Your task to perform on an android device: Open the map Image 0: 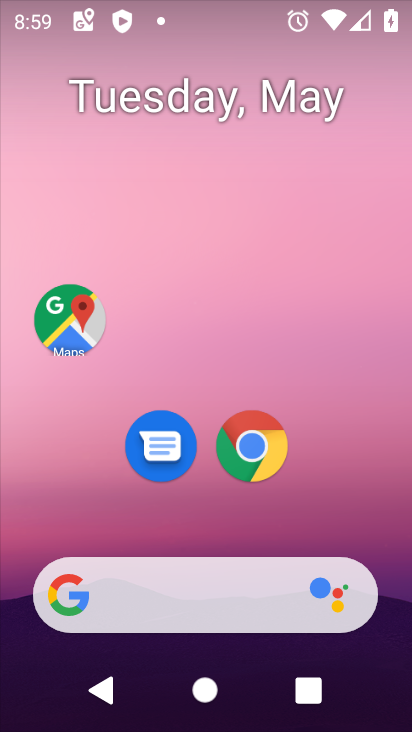
Step 0: click (67, 321)
Your task to perform on an android device: Open the map Image 1: 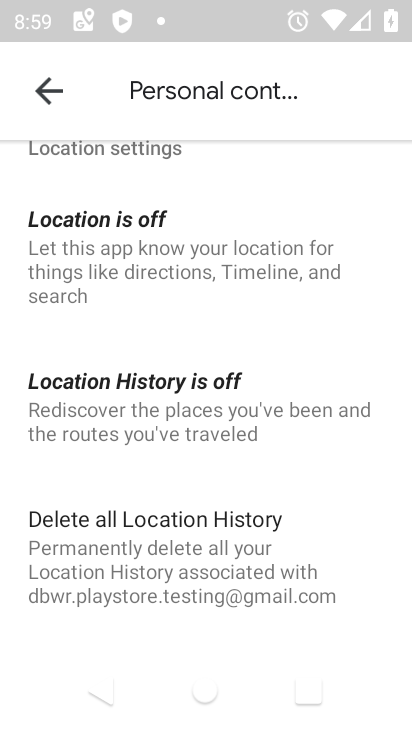
Step 1: click (40, 96)
Your task to perform on an android device: Open the map Image 2: 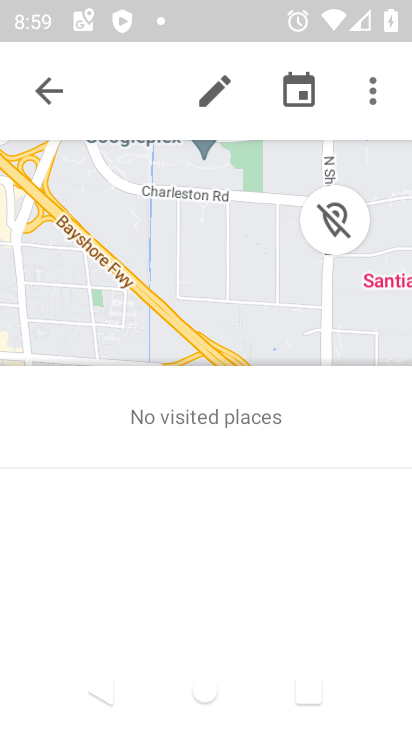
Step 2: click (63, 88)
Your task to perform on an android device: Open the map Image 3: 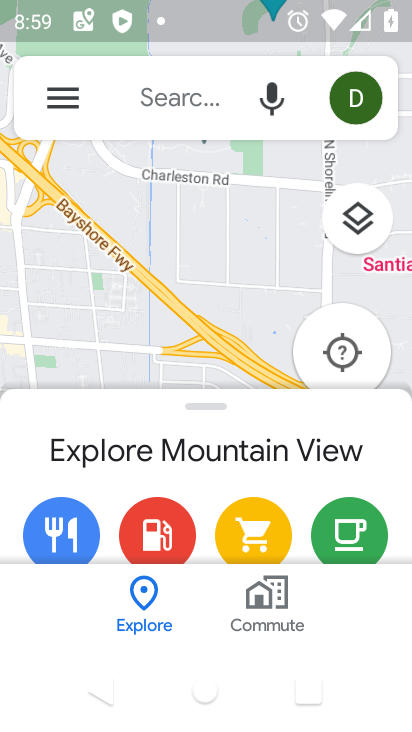
Step 3: task complete